Your task to perform on an android device: turn off improve location accuracy Image 0: 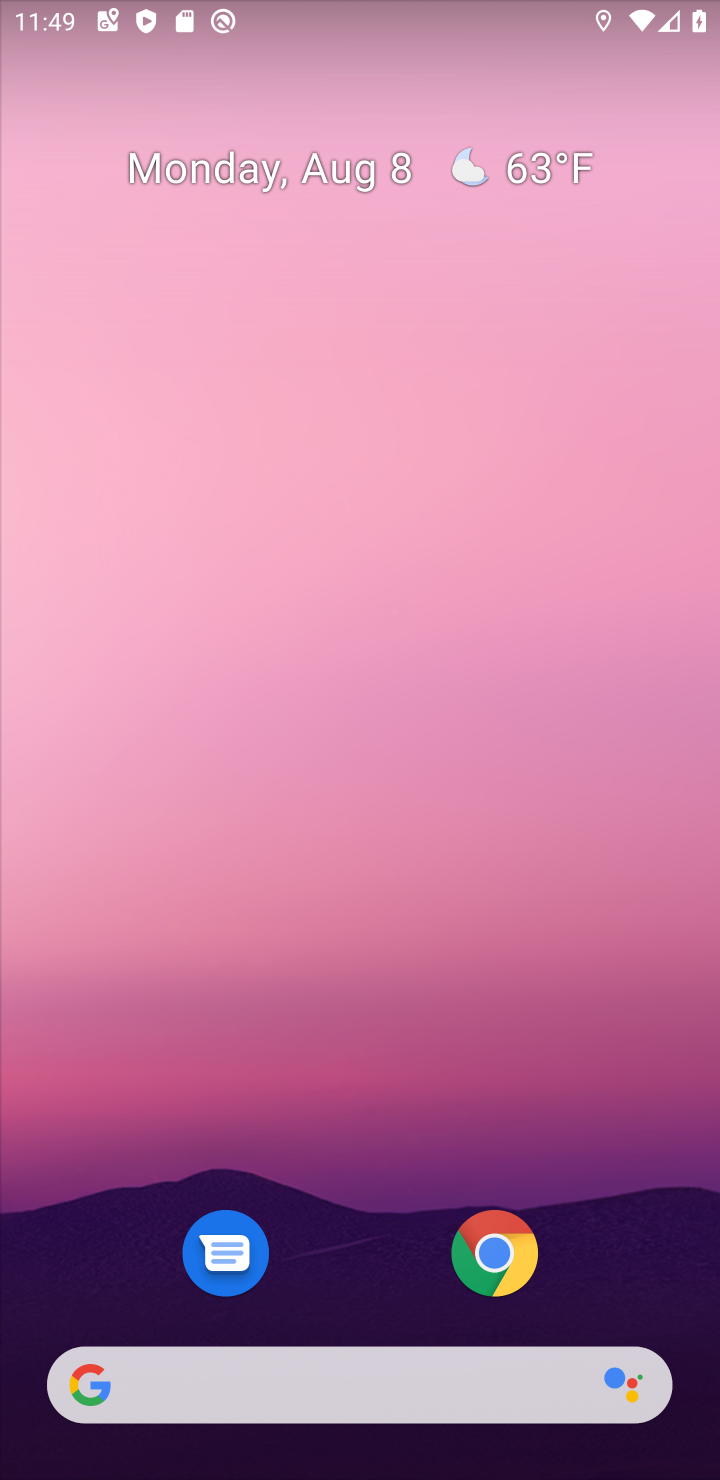
Step 0: drag from (562, 651) to (320, 134)
Your task to perform on an android device: turn off improve location accuracy Image 1: 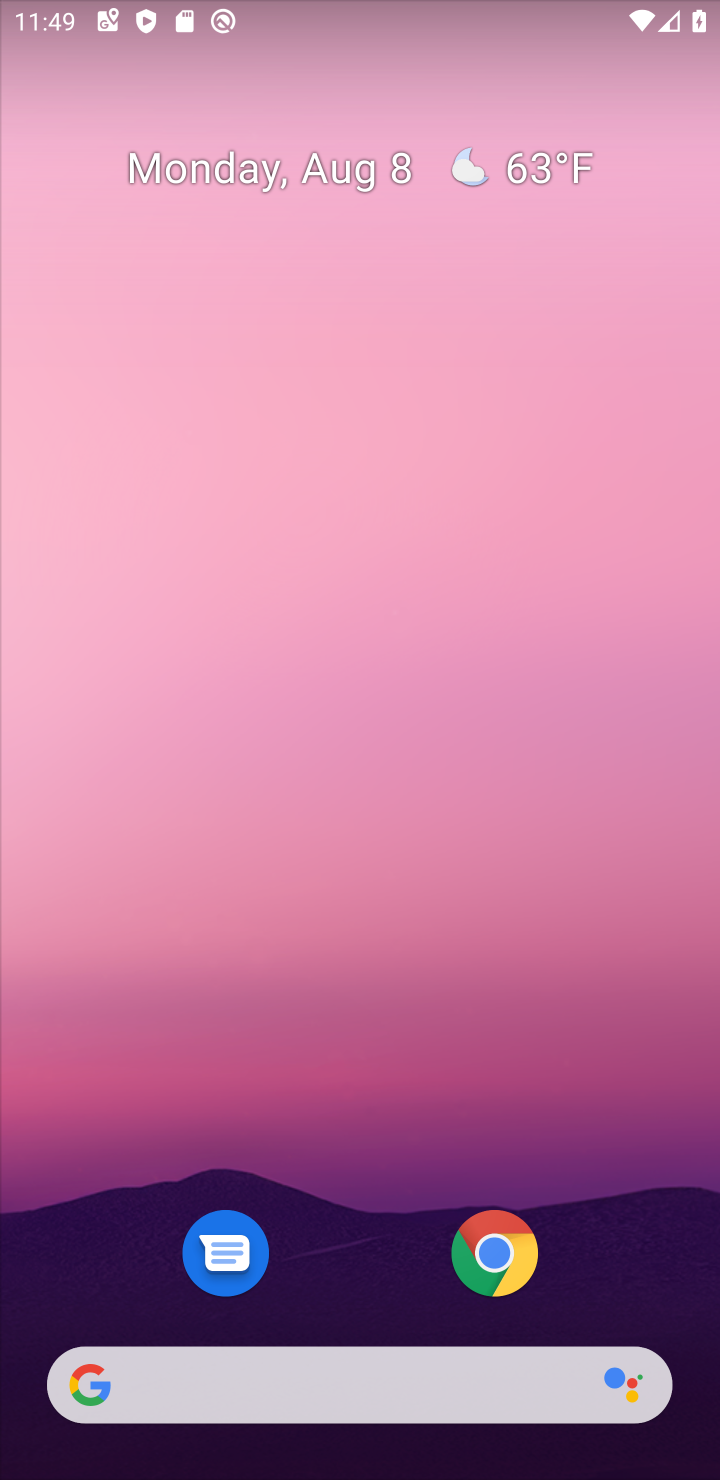
Step 1: drag from (641, 1085) to (346, 119)
Your task to perform on an android device: turn off improve location accuracy Image 2: 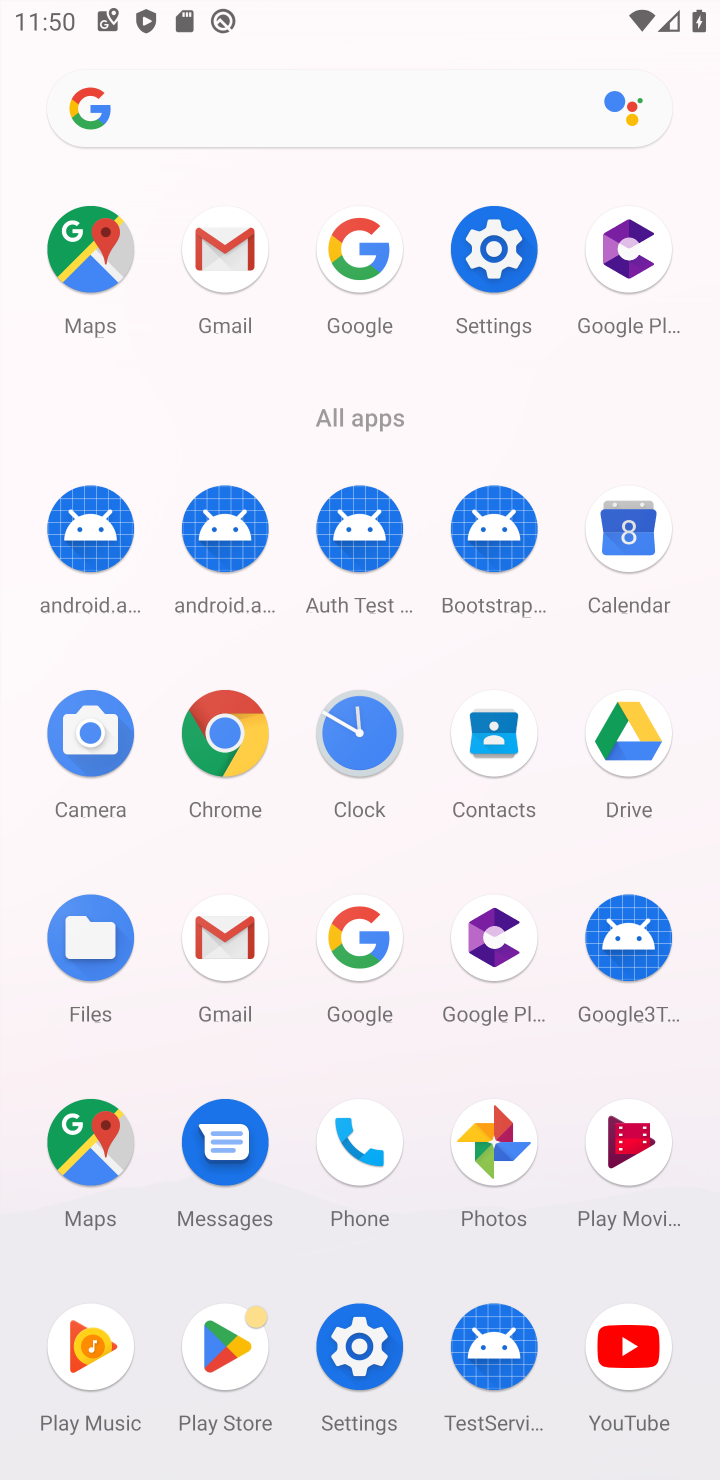
Step 2: click (375, 1331)
Your task to perform on an android device: turn off improve location accuracy Image 3: 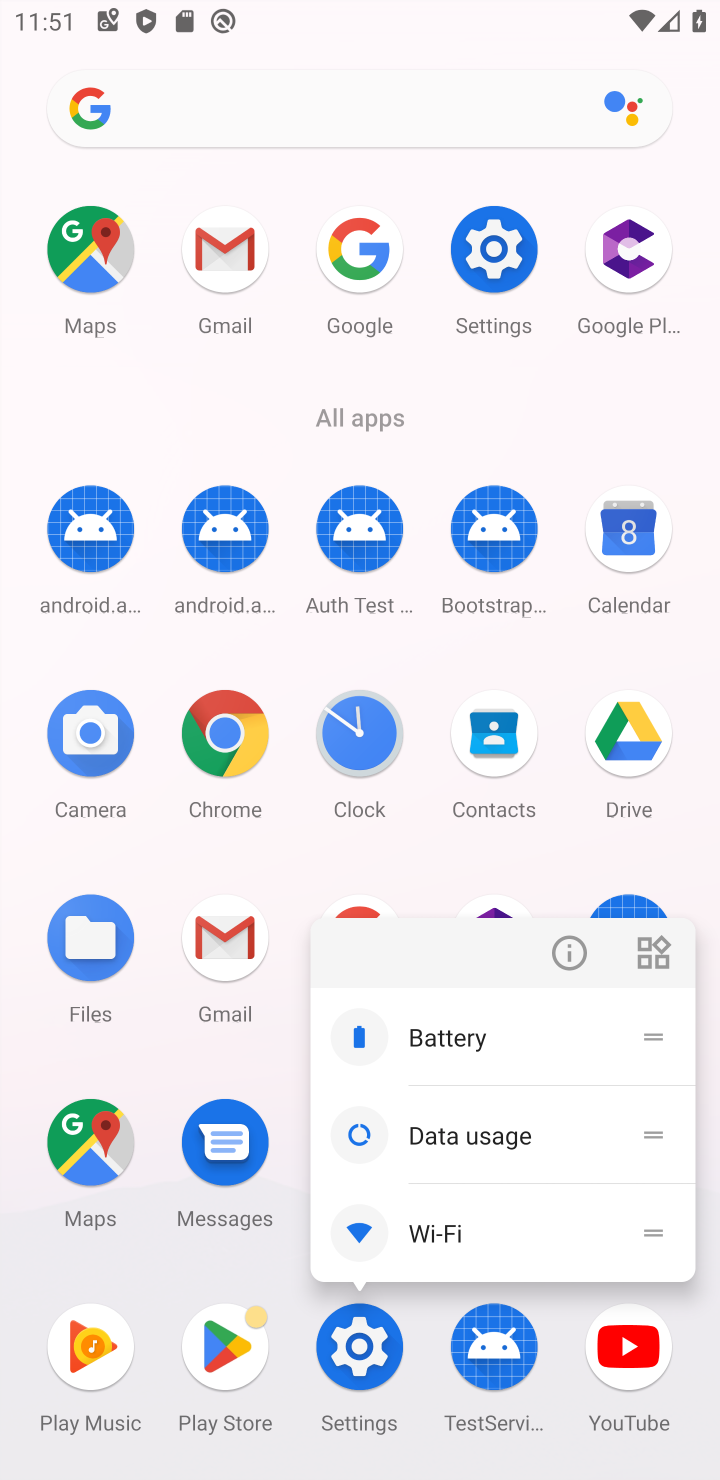
Step 3: click (344, 1354)
Your task to perform on an android device: turn off improve location accuracy Image 4: 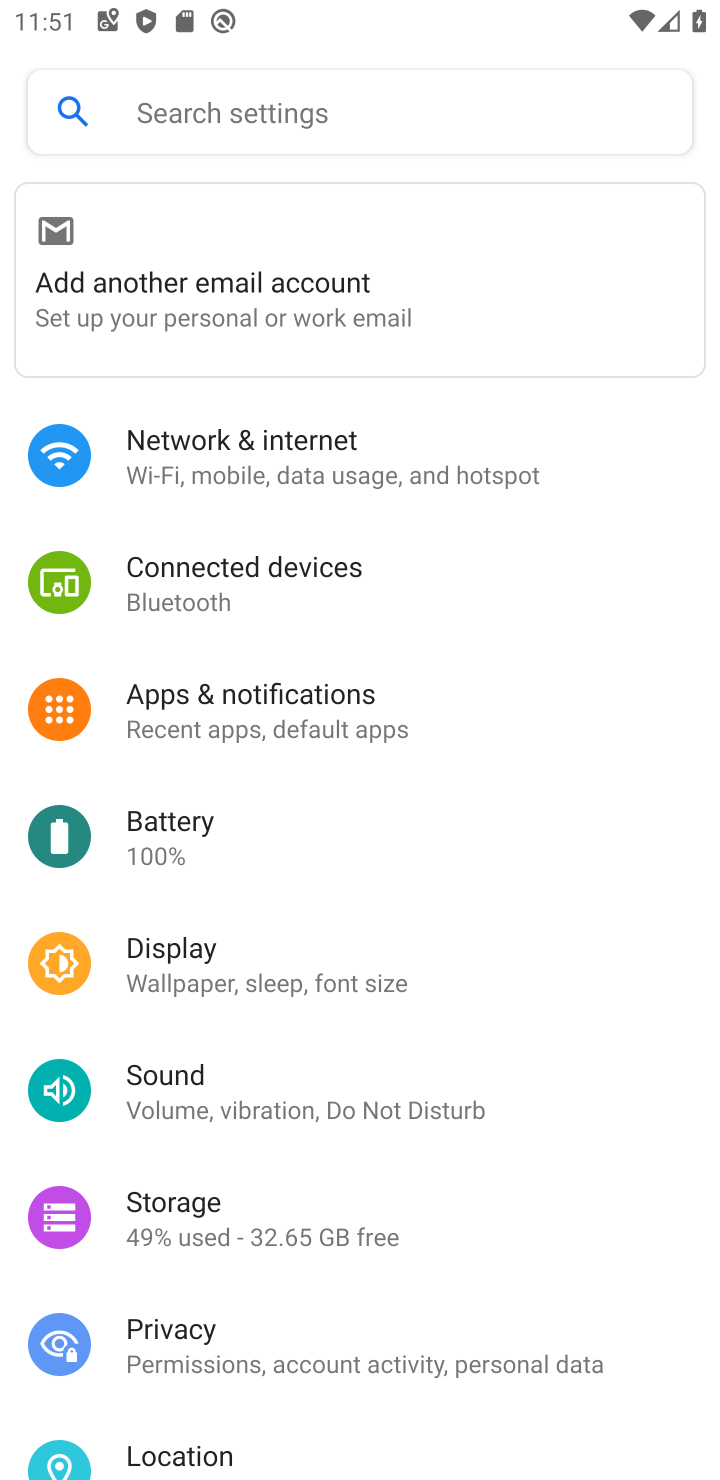
Step 4: click (289, 1439)
Your task to perform on an android device: turn off improve location accuracy Image 5: 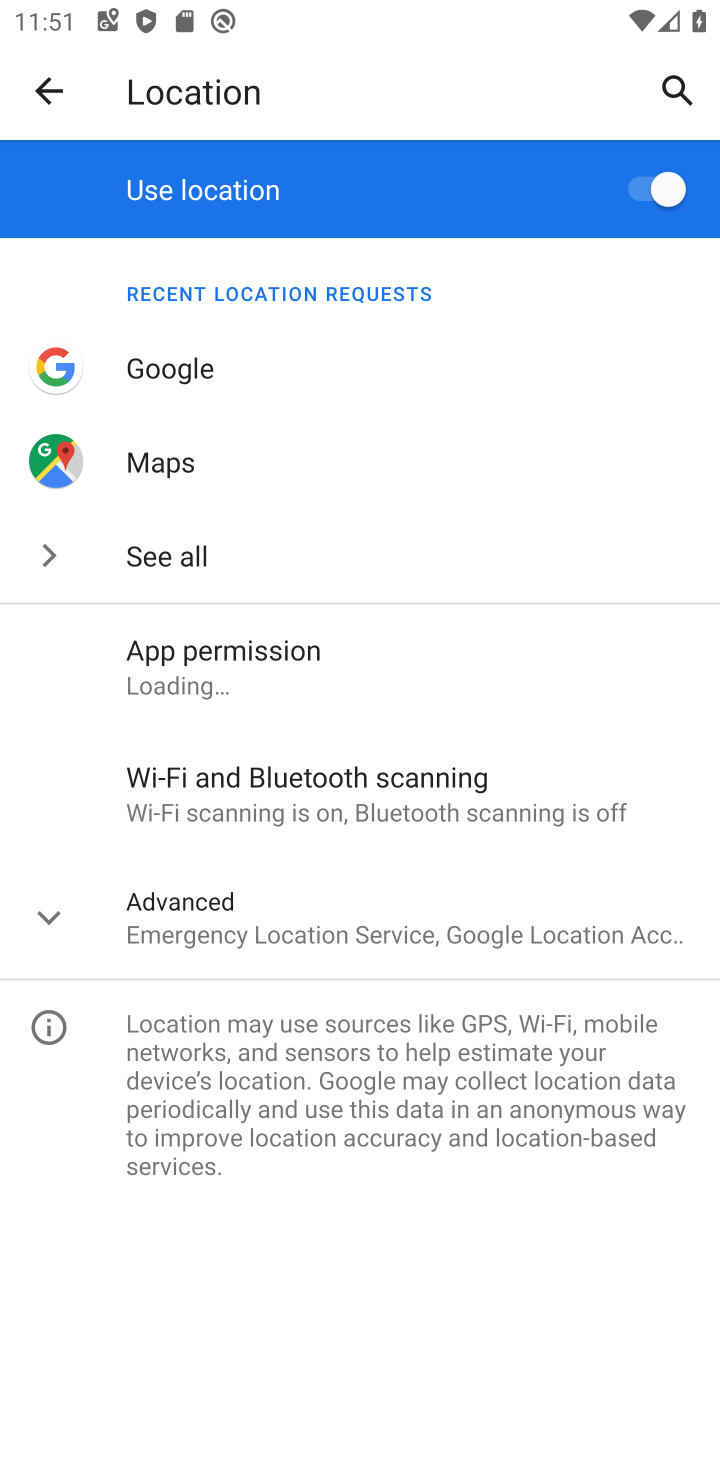
Step 5: click (335, 944)
Your task to perform on an android device: turn off improve location accuracy Image 6: 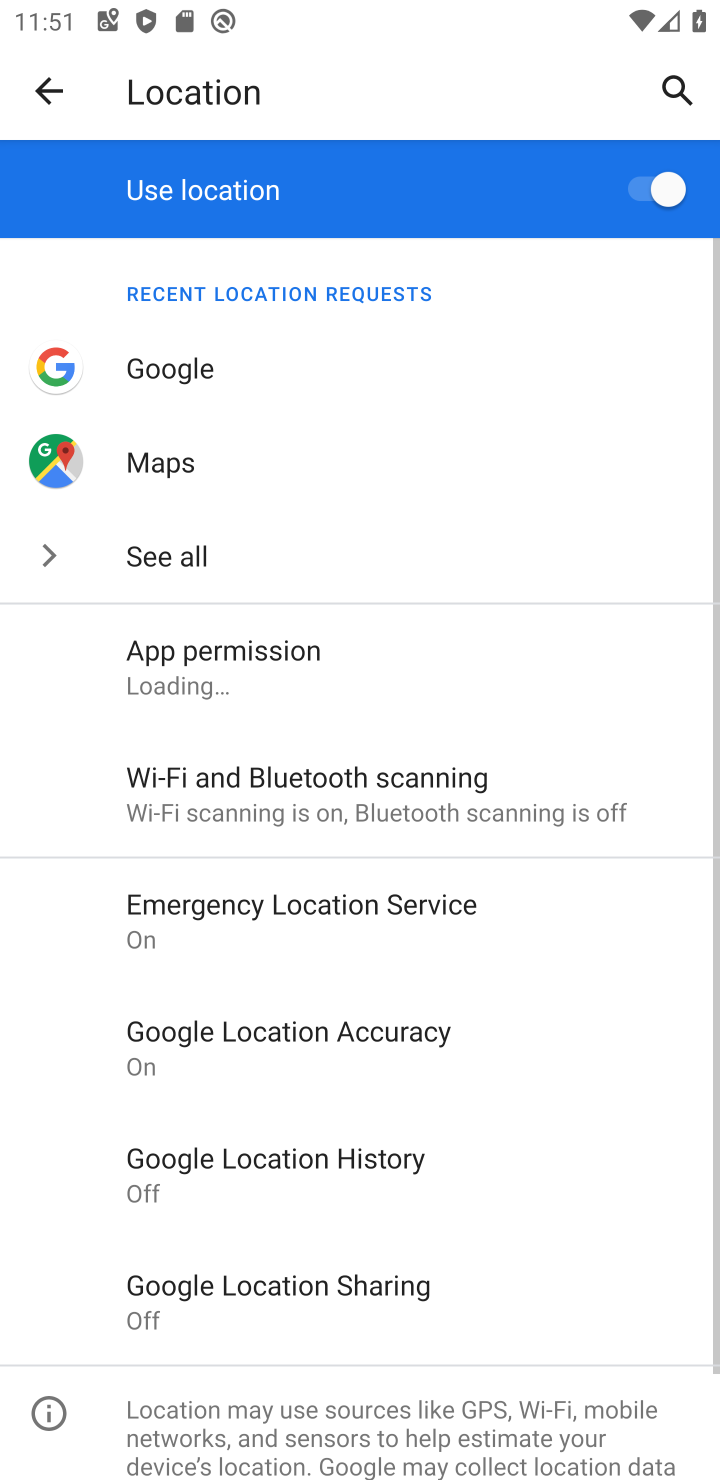
Step 6: click (277, 1066)
Your task to perform on an android device: turn off improve location accuracy Image 7: 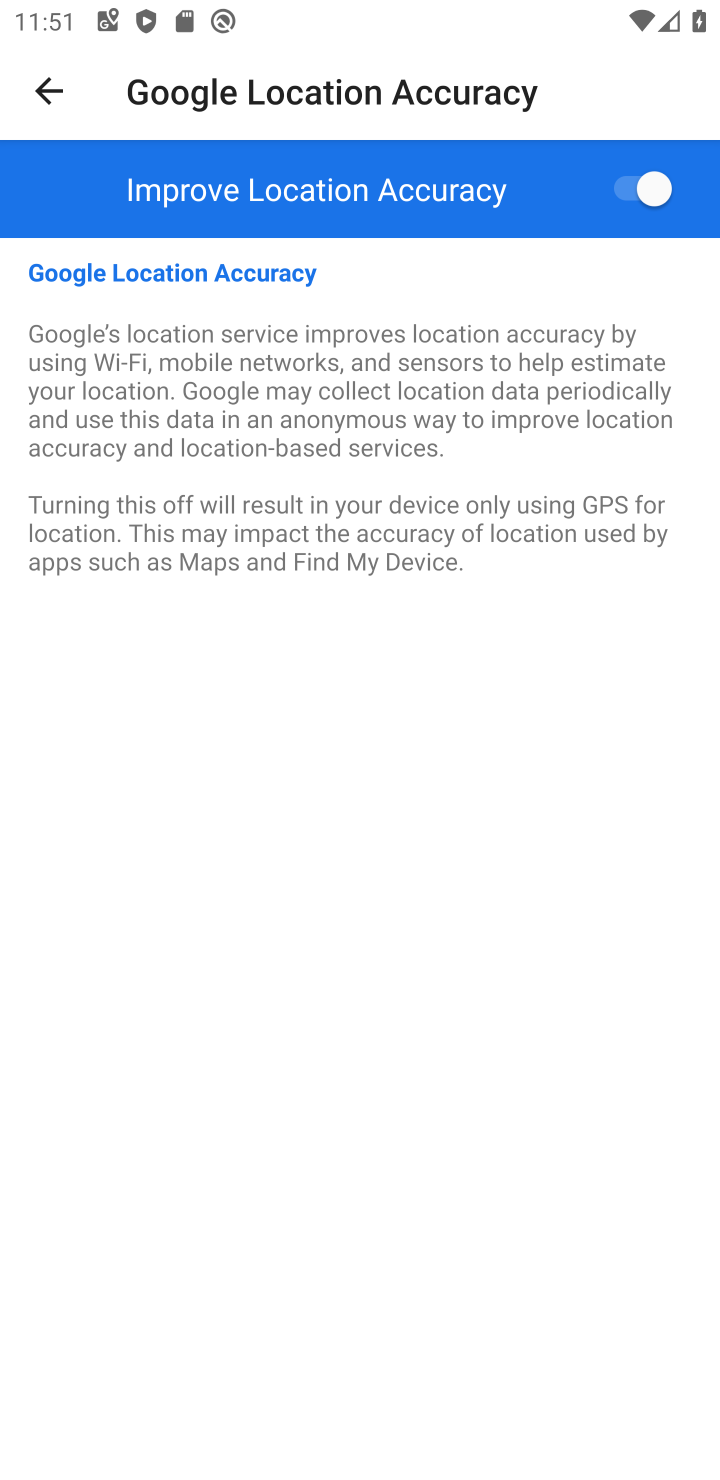
Step 7: click (647, 179)
Your task to perform on an android device: turn off improve location accuracy Image 8: 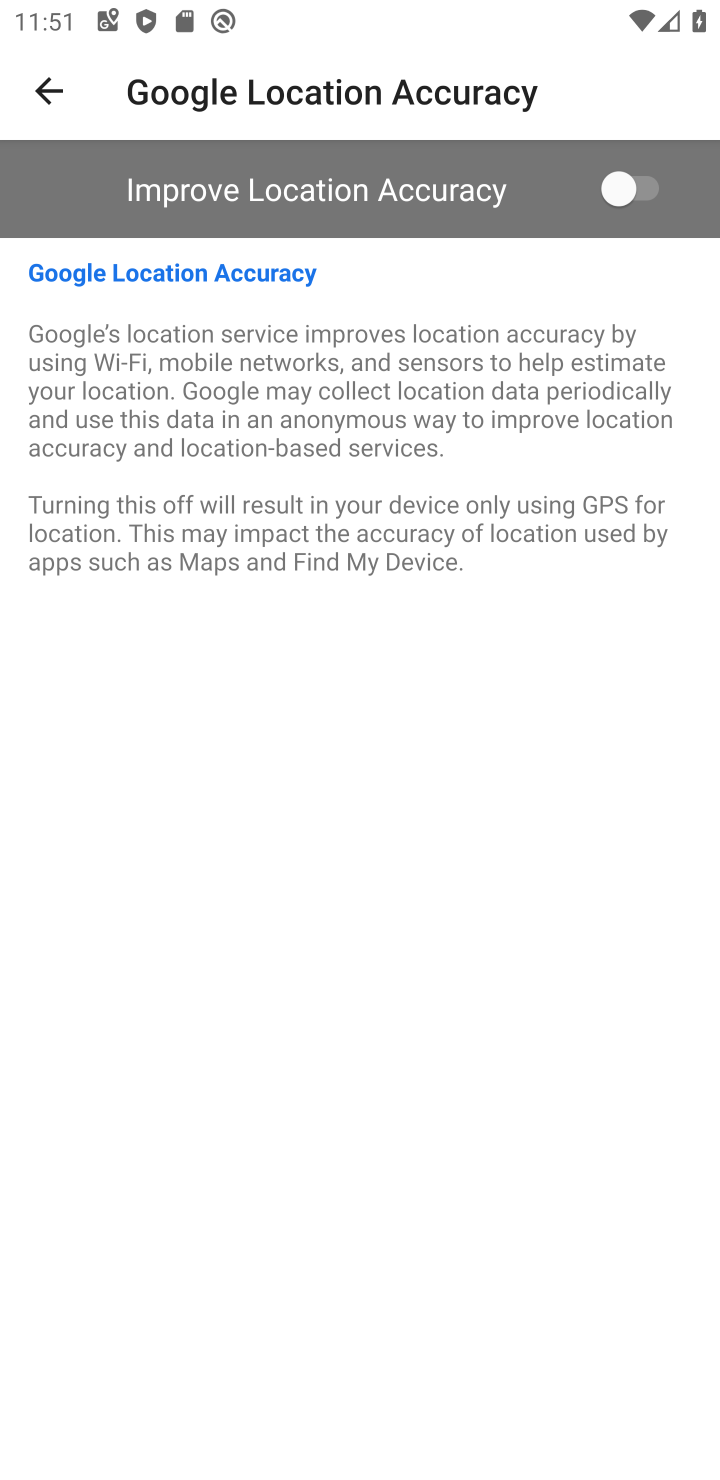
Step 8: task complete